Your task to perform on an android device: allow cookies in the chrome app Image 0: 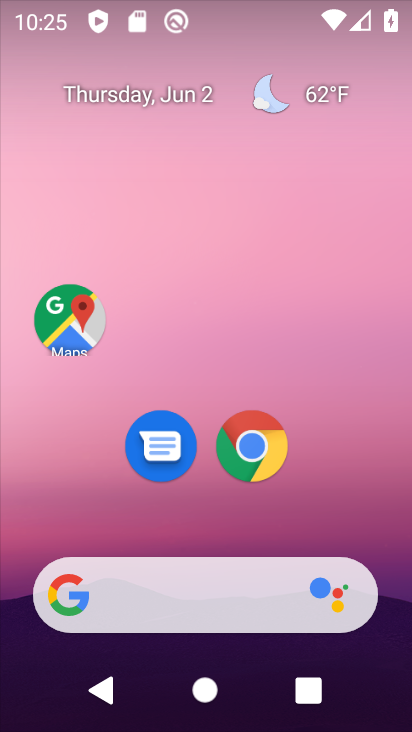
Step 0: click (257, 447)
Your task to perform on an android device: allow cookies in the chrome app Image 1: 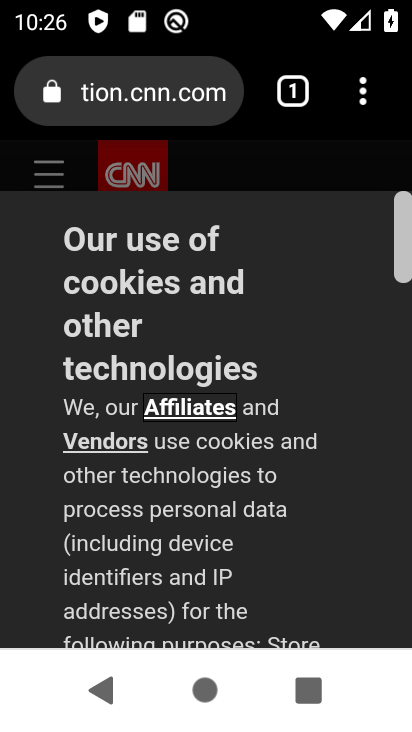
Step 1: click (361, 88)
Your task to perform on an android device: allow cookies in the chrome app Image 2: 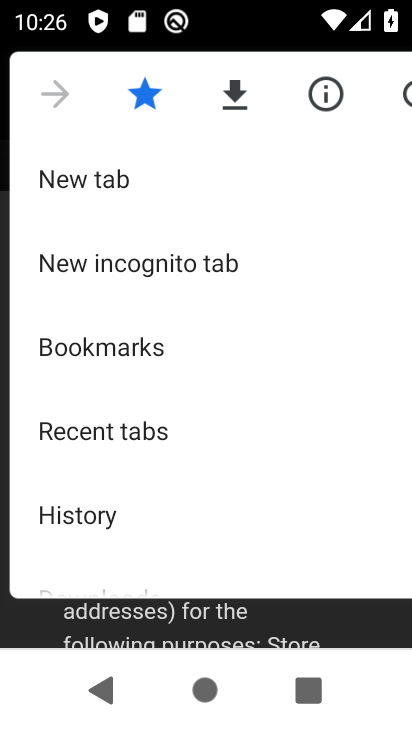
Step 2: drag from (181, 452) to (226, 140)
Your task to perform on an android device: allow cookies in the chrome app Image 3: 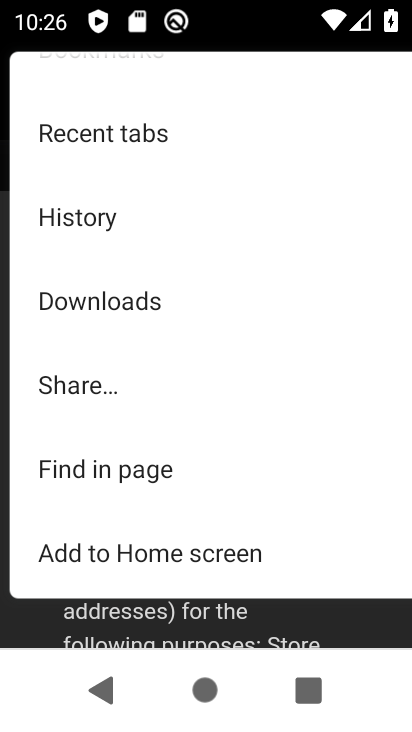
Step 3: drag from (177, 457) to (197, 200)
Your task to perform on an android device: allow cookies in the chrome app Image 4: 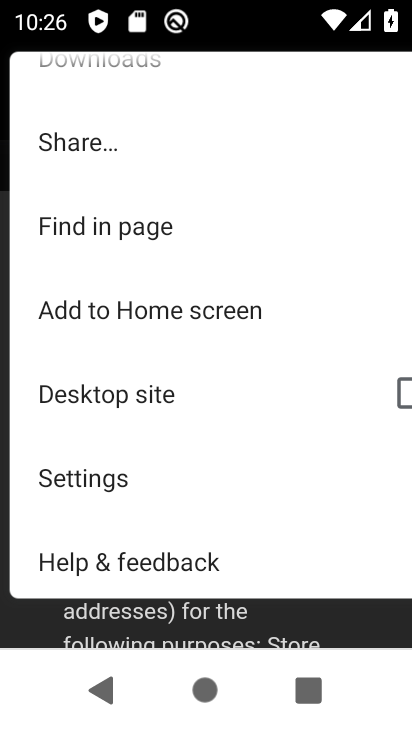
Step 4: click (111, 474)
Your task to perform on an android device: allow cookies in the chrome app Image 5: 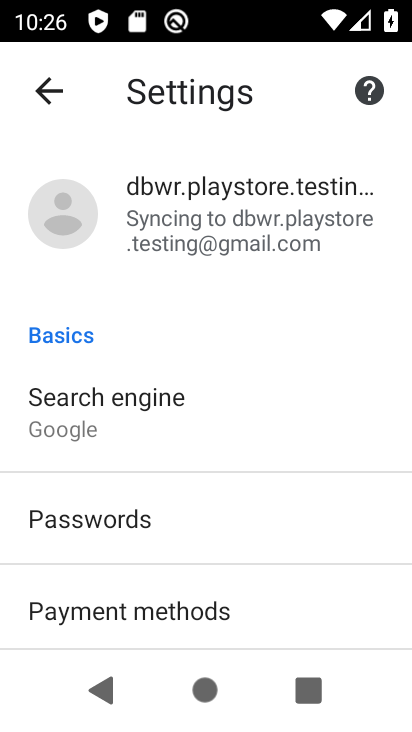
Step 5: drag from (248, 549) to (312, 229)
Your task to perform on an android device: allow cookies in the chrome app Image 6: 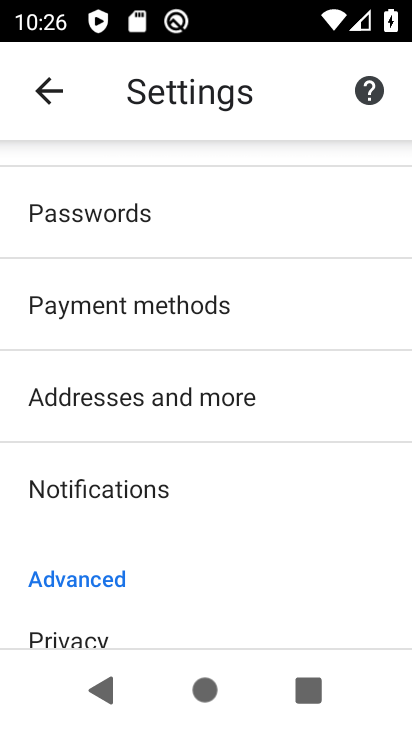
Step 6: drag from (235, 568) to (282, 224)
Your task to perform on an android device: allow cookies in the chrome app Image 7: 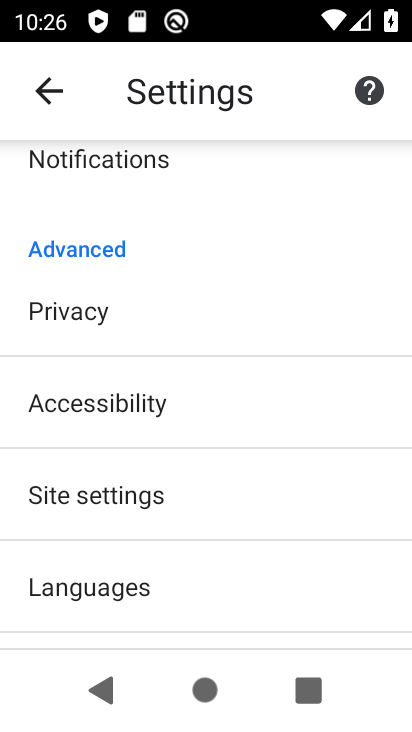
Step 7: click (134, 494)
Your task to perform on an android device: allow cookies in the chrome app Image 8: 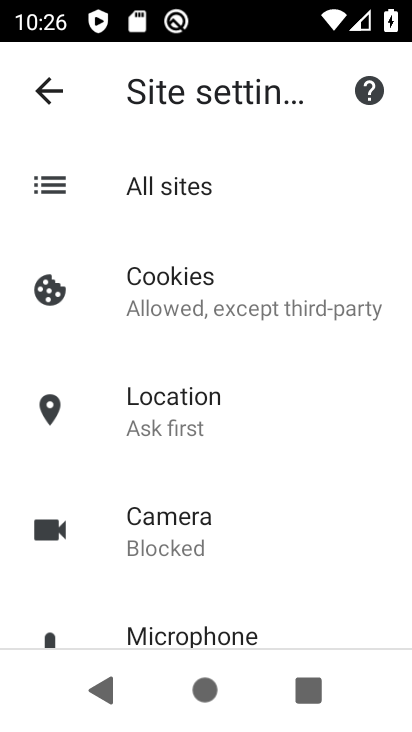
Step 8: click (231, 300)
Your task to perform on an android device: allow cookies in the chrome app Image 9: 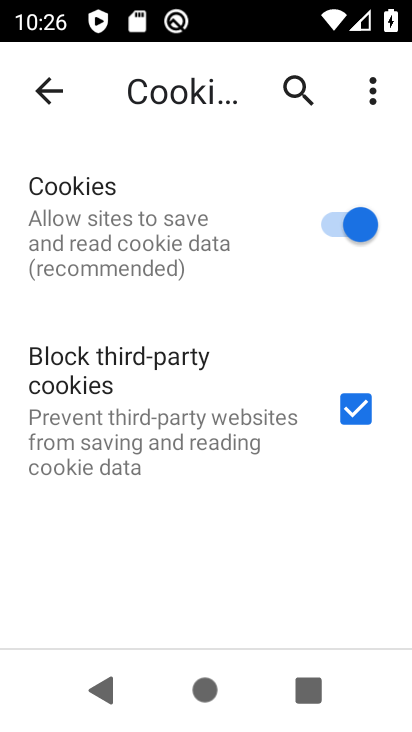
Step 9: task complete